Your task to perform on an android device: Open sound settings Image 0: 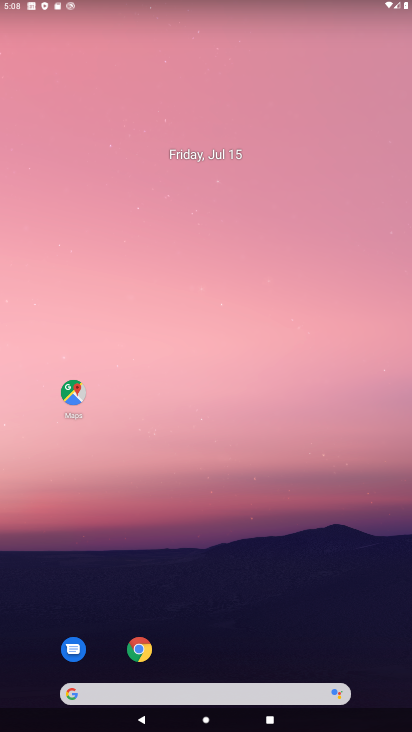
Step 0: drag from (180, 687) to (261, 103)
Your task to perform on an android device: Open sound settings Image 1: 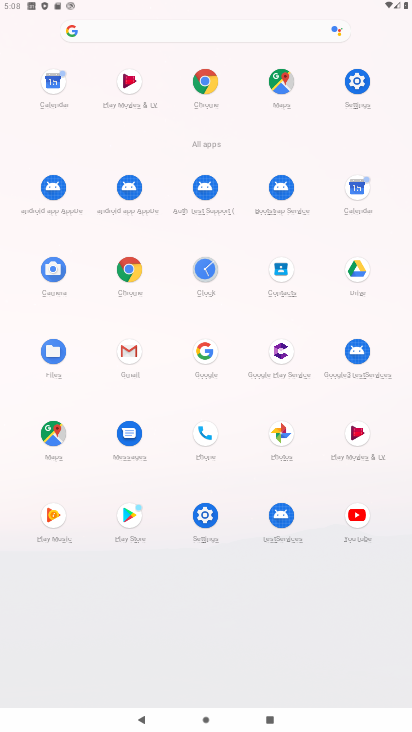
Step 1: click (358, 83)
Your task to perform on an android device: Open sound settings Image 2: 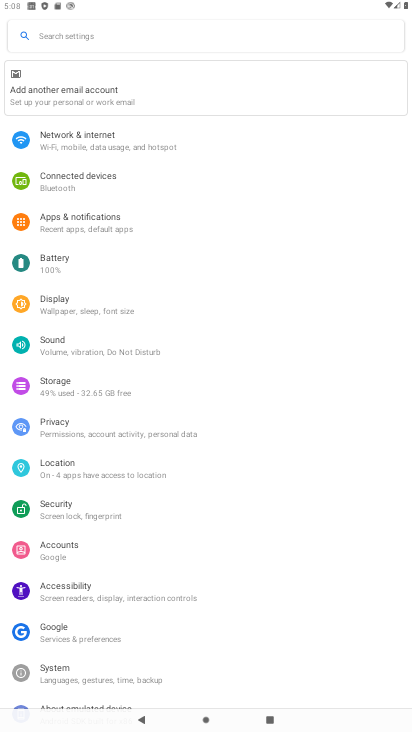
Step 2: click (81, 355)
Your task to perform on an android device: Open sound settings Image 3: 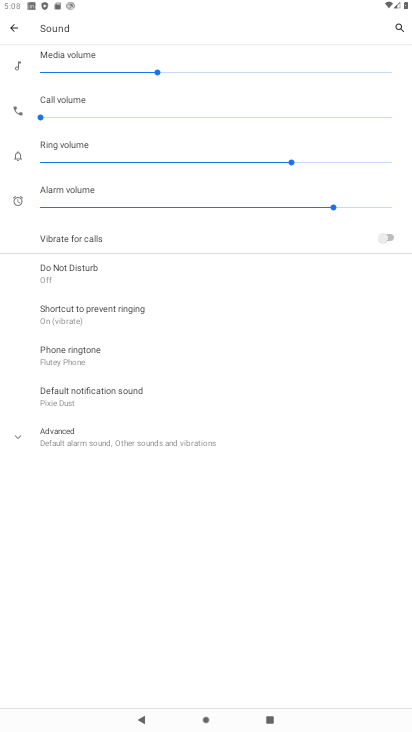
Step 3: task complete